Your task to perform on an android device: Open calendar and show me the third week of next month Image 0: 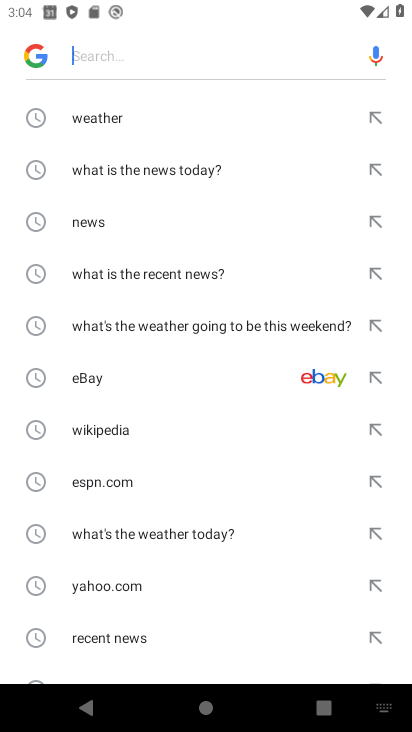
Step 0: press home button
Your task to perform on an android device: Open calendar and show me the third week of next month Image 1: 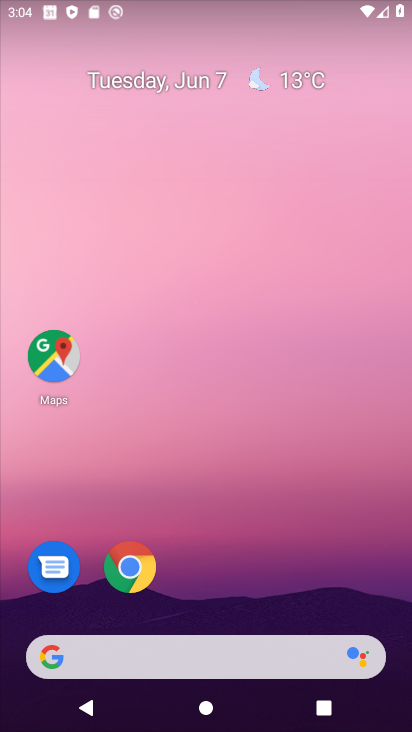
Step 1: drag from (221, 529) to (270, 66)
Your task to perform on an android device: Open calendar and show me the third week of next month Image 2: 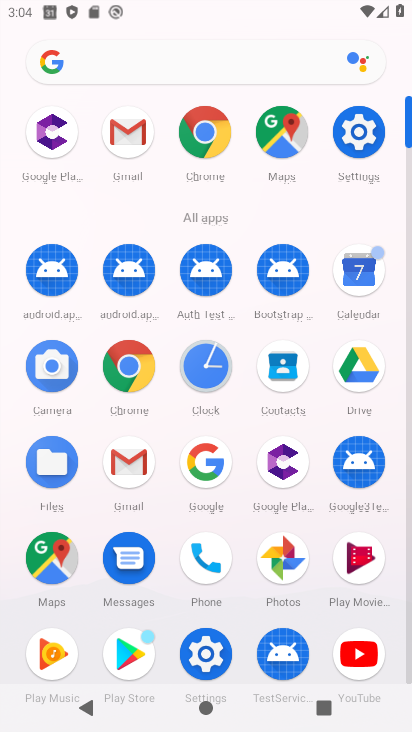
Step 2: click (365, 277)
Your task to perform on an android device: Open calendar and show me the third week of next month Image 3: 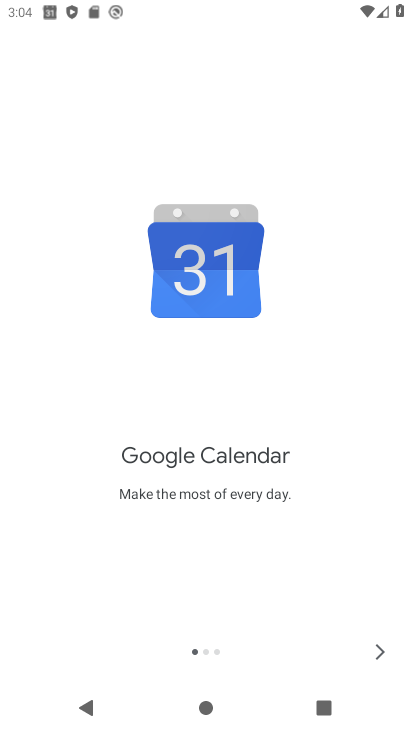
Step 3: click (394, 634)
Your task to perform on an android device: Open calendar and show me the third week of next month Image 4: 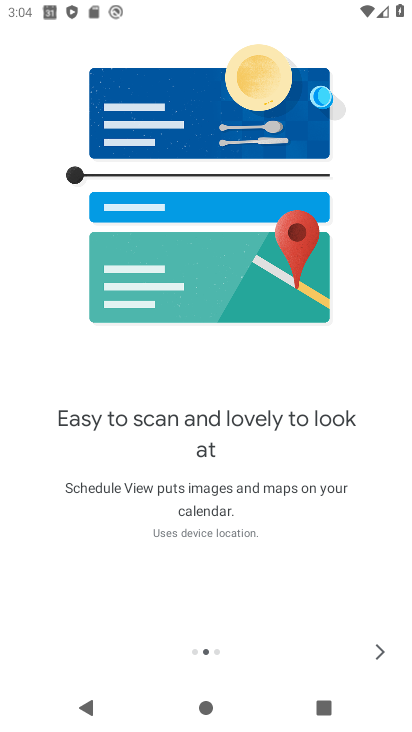
Step 4: click (376, 646)
Your task to perform on an android device: Open calendar and show me the third week of next month Image 5: 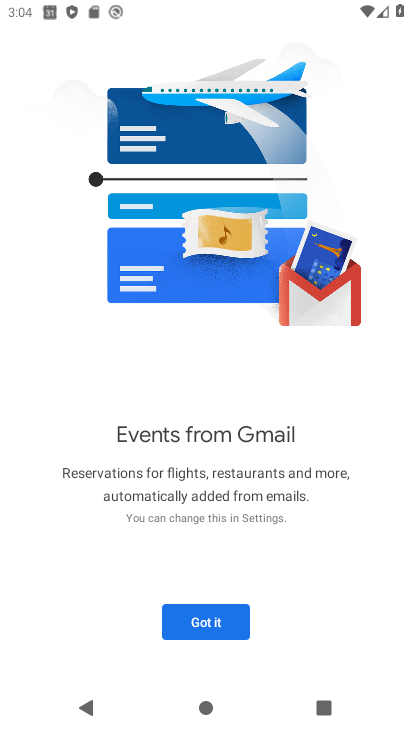
Step 5: click (172, 611)
Your task to perform on an android device: Open calendar and show me the third week of next month Image 6: 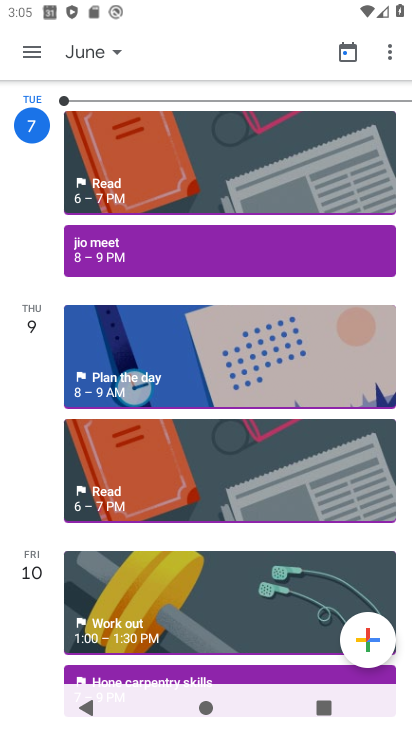
Step 6: click (97, 61)
Your task to perform on an android device: Open calendar and show me the third week of next month Image 7: 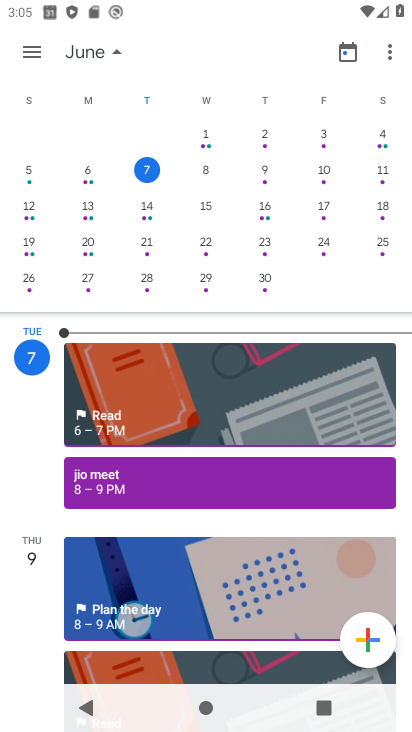
Step 7: drag from (380, 210) to (61, 182)
Your task to perform on an android device: Open calendar and show me the third week of next month Image 8: 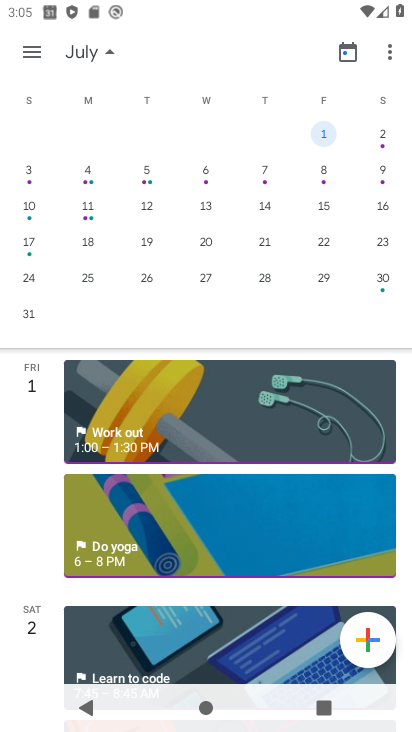
Step 8: click (85, 241)
Your task to perform on an android device: Open calendar and show me the third week of next month Image 9: 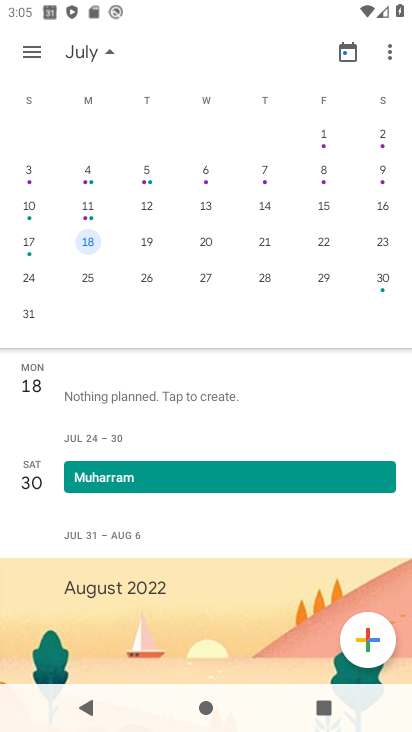
Step 9: task complete